Your task to perform on an android device: Open Google Maps and go to "Timeline" Image 0: 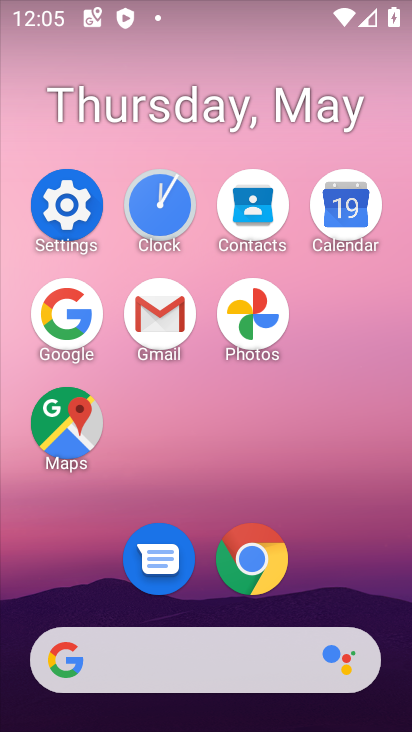
Step 0: click (75, 440)
Your task to perform on an android device: Open Google Maps and go to "Timeline" Image 1: 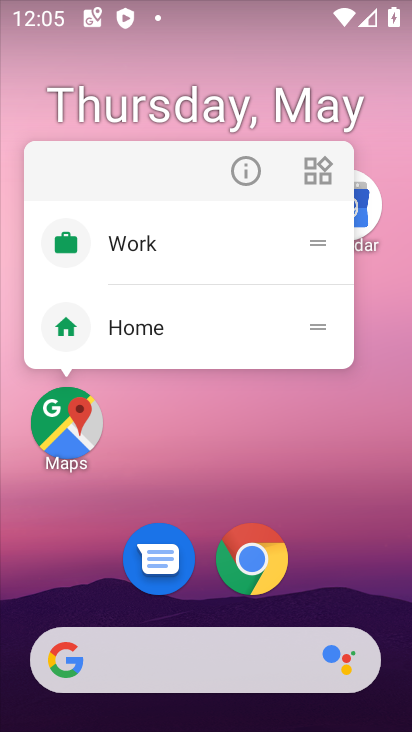
Step 1: click (75, 435)
Your task to perform on an android device: Open Google Maps and go to "Timeline" Image 2: 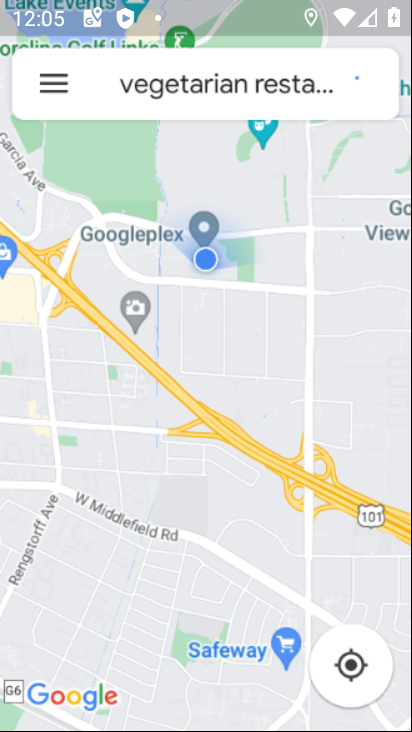
Step 2: click (61, 94)
Your task to perform on an android device: Open Google Maps and go to "Timeline" Image 3: 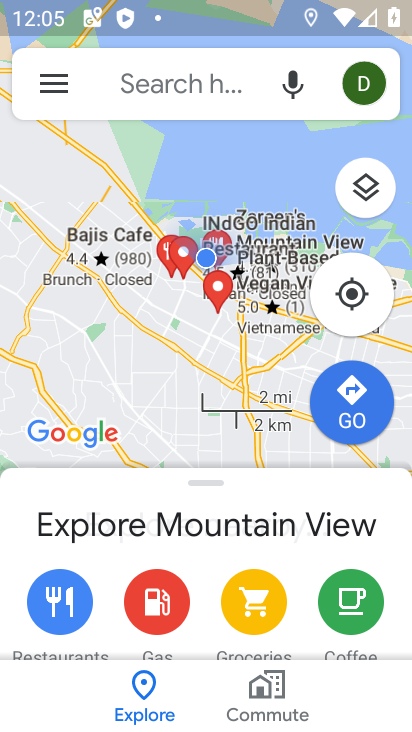
Step 3: click (61, 94)
Your task to perform on an android device: Open Google Maps and go to "Timeline" Image 4: 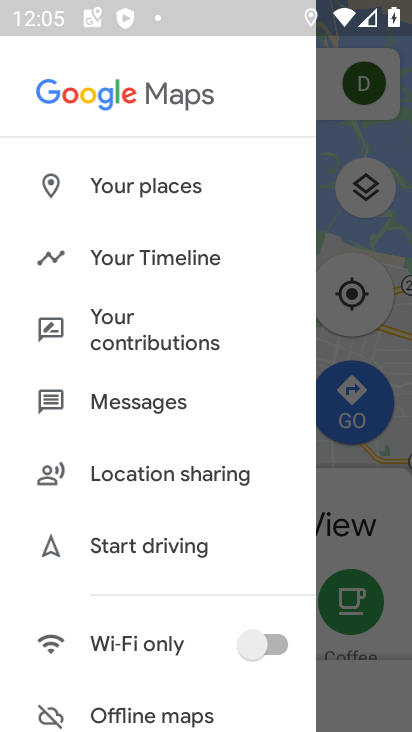
Step 4: click (139, 253)
Your task to perform on an android device: Open Google Maps and go to "Timeline" Image 5: 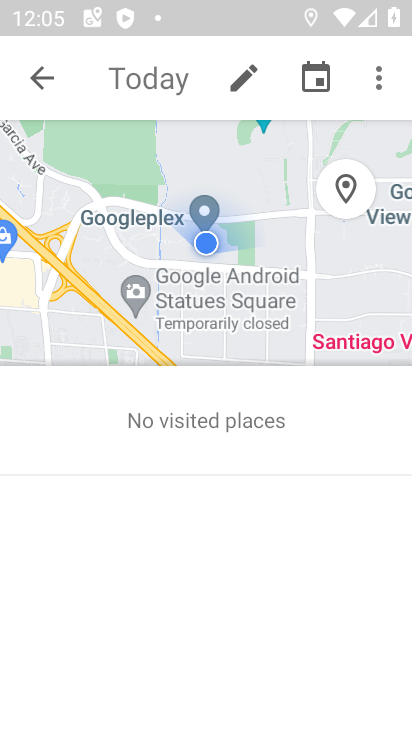
Step 5: task complete